Your task to perform on an android device: toggle pop-ups in chrome Image 0: 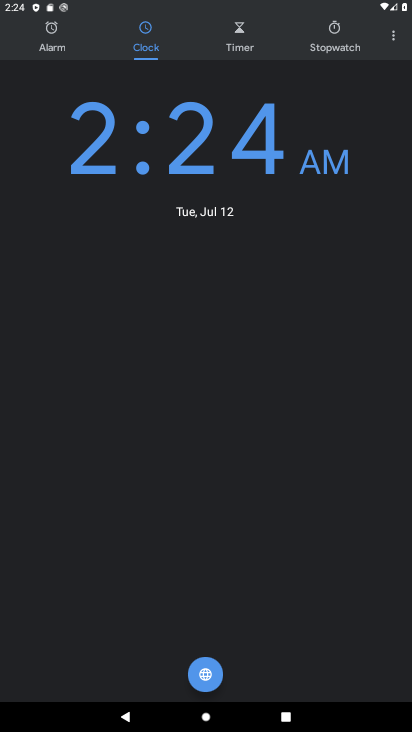
Step 0: press home button
Your task to perform on an android device: toggle pop-ups in chrome Image 1: 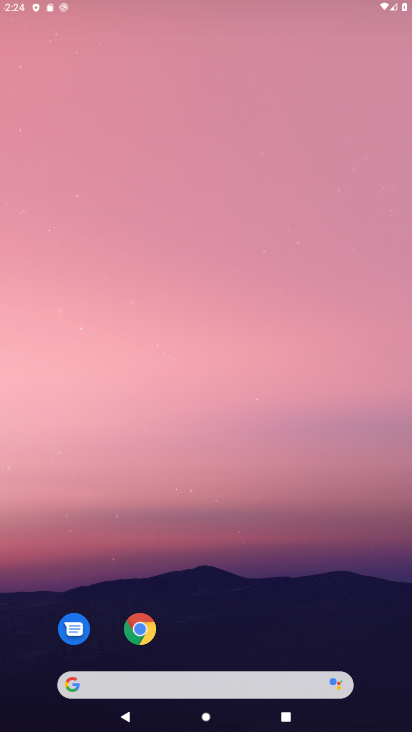
Step 1: drag from (298, 639) to (298, 5)
Your task to perform on an android device: toggle pop-ups in chrome Image 2: 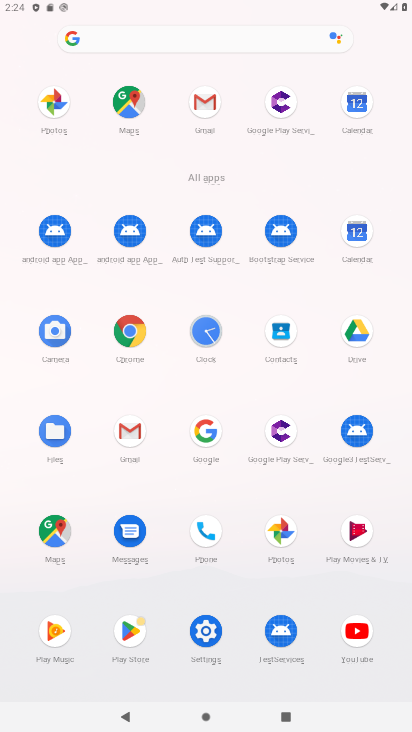
Step 2: click (133, 326)
Your task to perform on an android device: toggle pop-ups in chrome Image 3: 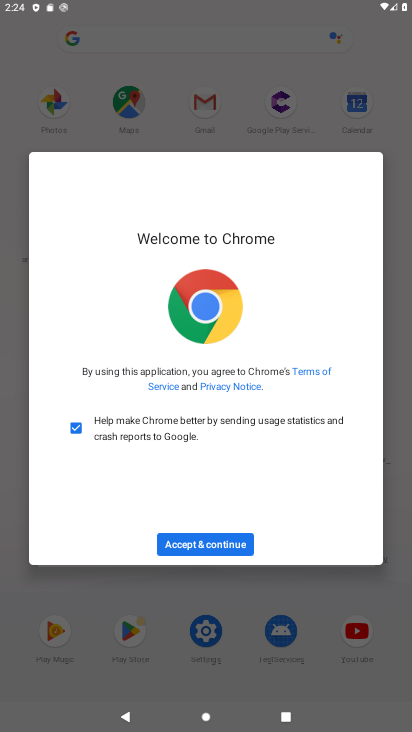
Step 3: click (229, 549)
Your task to perform on an android device: toggle pop-ups in chrome Image 4: 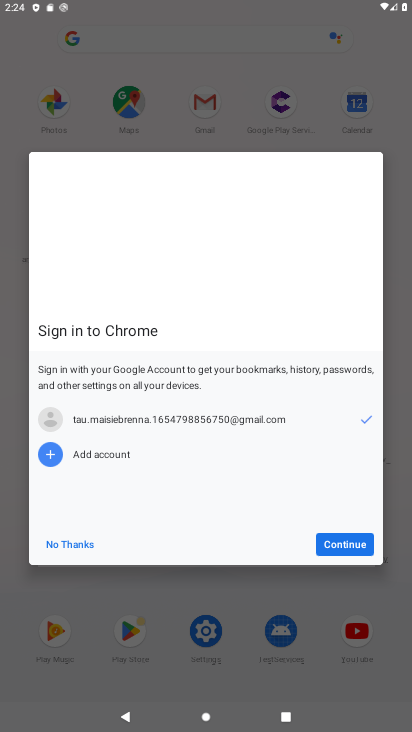
Step 4: click (91, 547)
Your task to perform on an android device: toggle pop-ups in chrome Image 5: 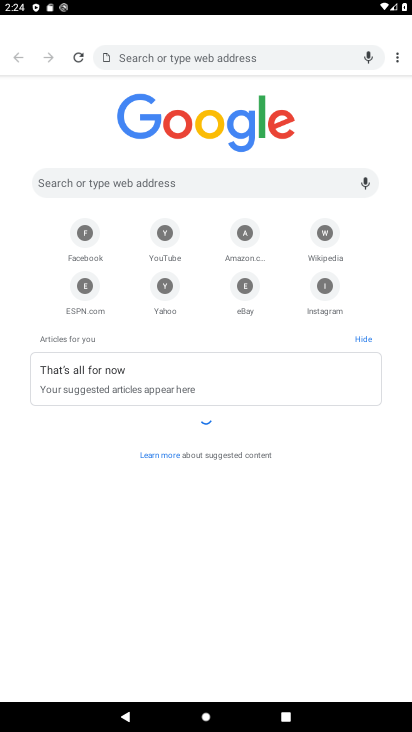
Step 5: drag from (402, 56) to (294, 263)
Your task to perform on an android device: toggle pop-ups in chrome Image 6: 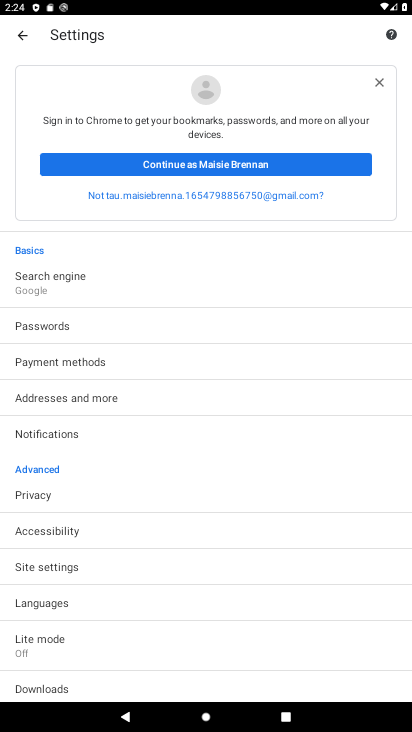
Step 6: click (87, 569)
Your task to perform on an android device: toggle pop-ups in chrome Image 7: 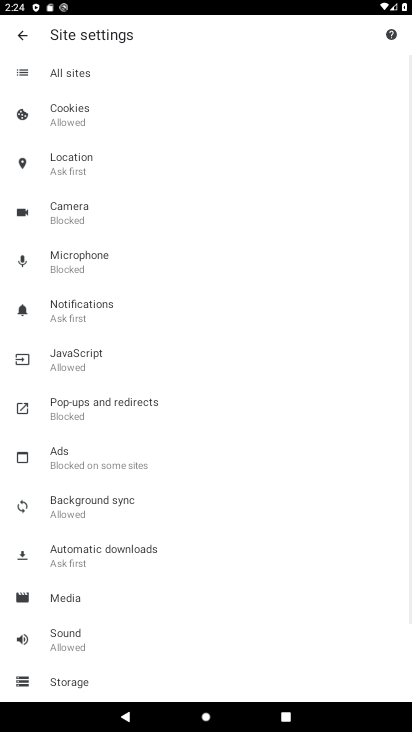
Step 7: click (105, 410)
Your task to perform on an android device: toggle pop-ups in chrome Image 8: 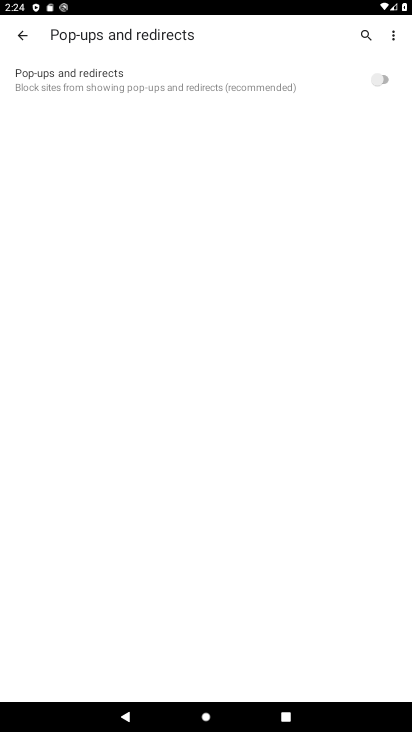
Step 8: click (385, 73)
Your task to perform on an android device: toggle pop-ups in chrome Image 9: 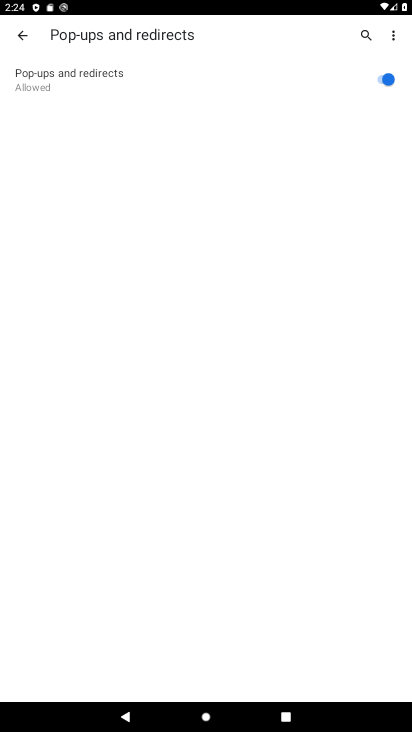
Step 9: task complete